Your task to perform on an android device: Search for sushi restaurants on Maps Image 0: 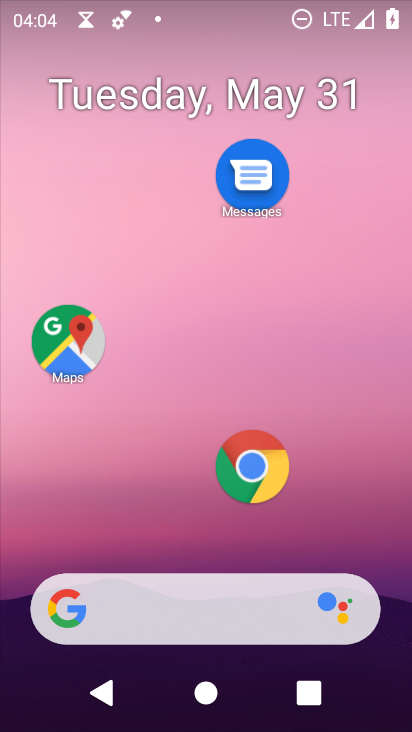
Step 0: drag from (164, 521) to (210, 163)
Your task to perform on an android device: Search for sushi restaurants on Maps Image 1: 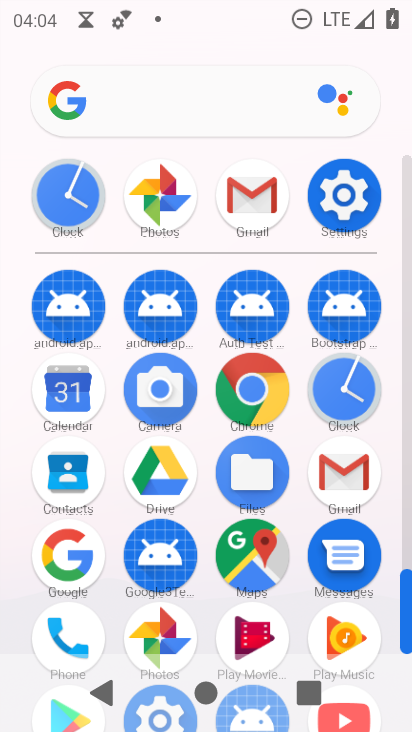
Step 1: click (252, 560)
Your task to perform on an android device: Search for sushi restaurants on Maps Image 2: 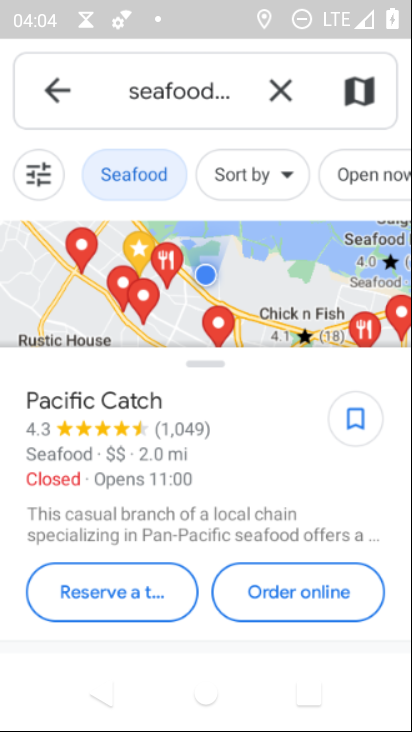
Step 2: click (263, 77)
Your task to perform on an android device: Search for sushi restaurants on Maps Image 3: 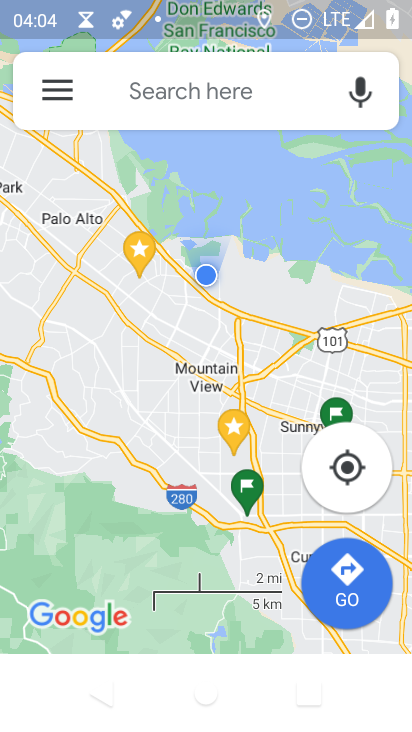
Step 3: click (154, 90)
Your task to perform on an android device: Search for sushi restaurants on Maps Image 4: 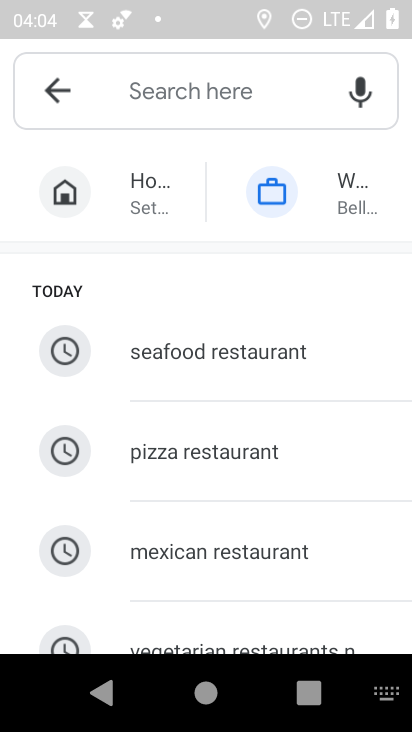
Step 4: drag from (186, 559) to (233, 166)
Your task to perform on an android device: Search for sushi restaurants on Maps Image 5: 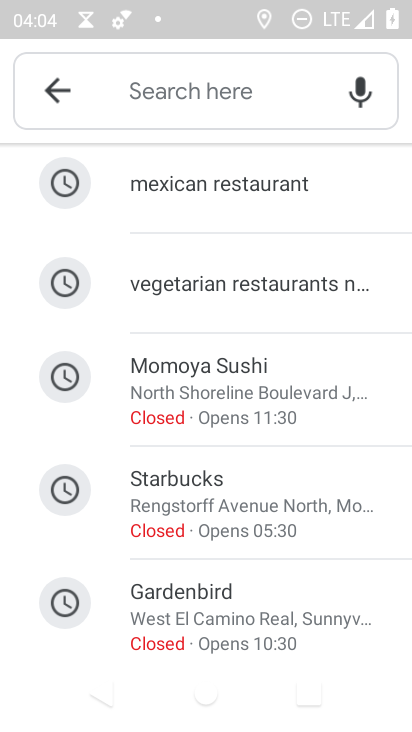
Step 5: drag from (278, 186) to (223, 697)
Your task to perform on an android device: Search for sushi restaurants on Maps Image 6: 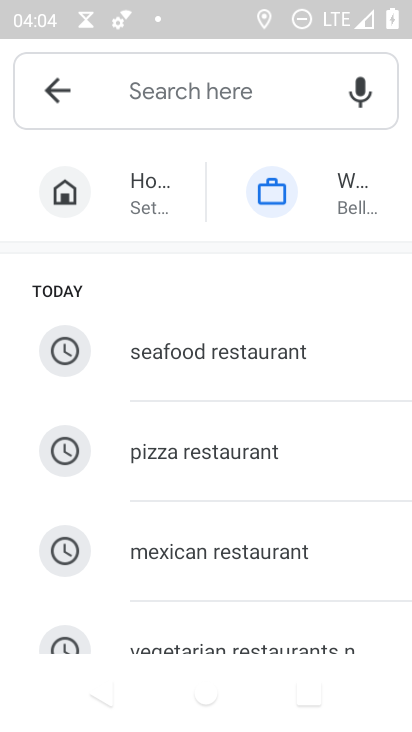
Step 6: click (160, 96)
Your task to perform on an android device: Search for sushi restaurants on Maps Image 7: 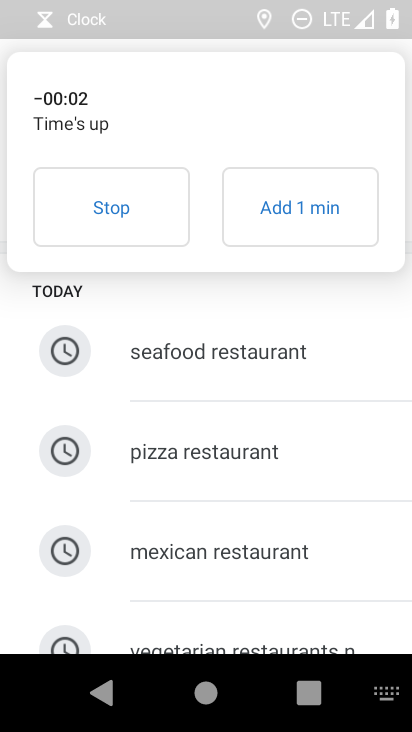
Step 7: type "sushi restaurants"
Your task to perform on an android device: Search for sushi restaurants on Maps Image 8: 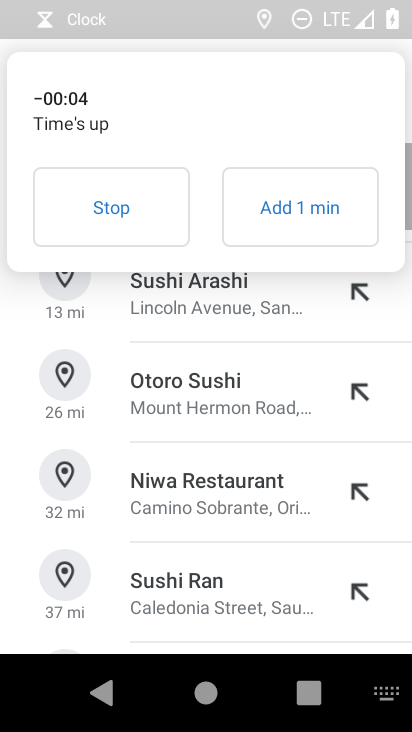
Step 8: click (131, 205)
Your task to perform on an android device: Search for sushi restaurants on Maps Image 9: 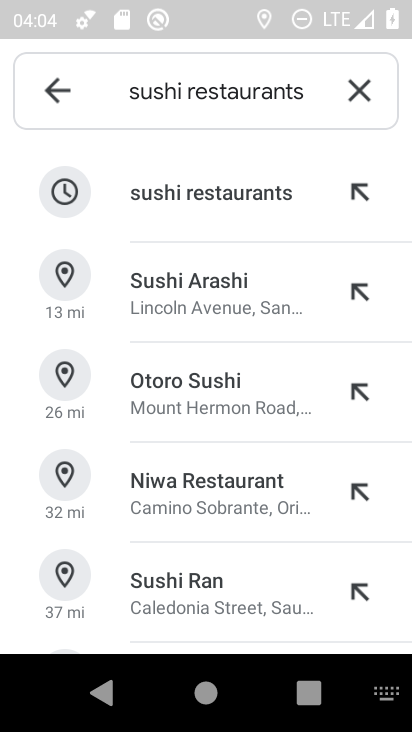
Step 9: click (196, 199)
Your task to perform on an android device: Search for sushi restaurants on Maps Image 10: 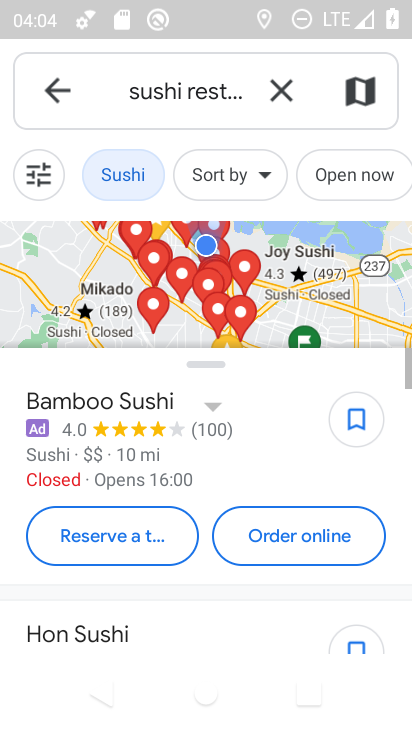
Step 10: task complete